Your task to perform on an android device: set the timer Image 0: 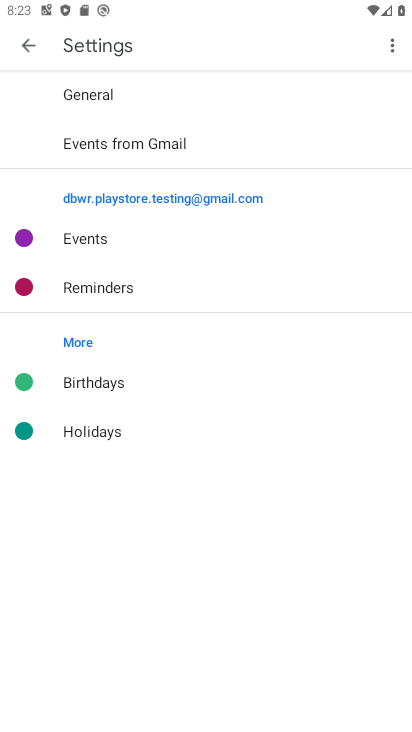
Step 0: press home button
Your task to perform on an android device: set the timer Image 1: 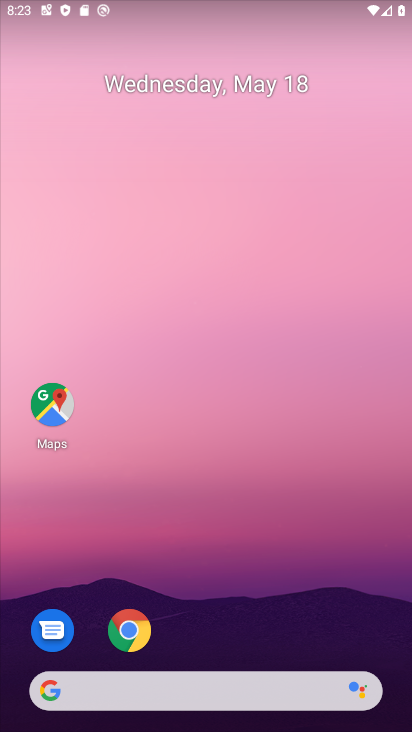
Step 1: drag from (148, 690) to (318, 150)
Your task to perform on an android device: set the timer Image 2: 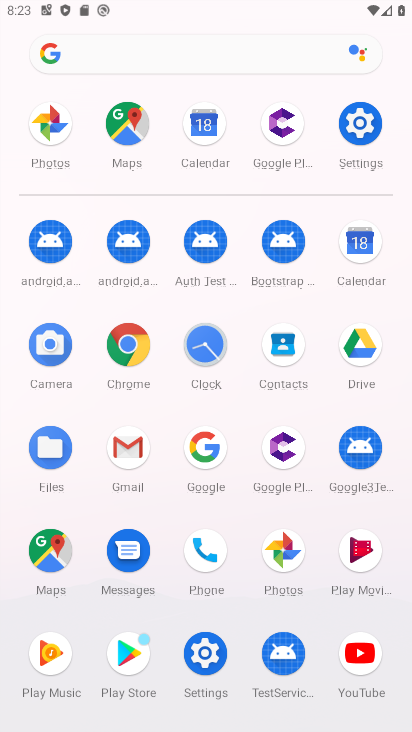
Step 2: click (202, 352)
Your task to perform on an android device: set the timer Image 3: 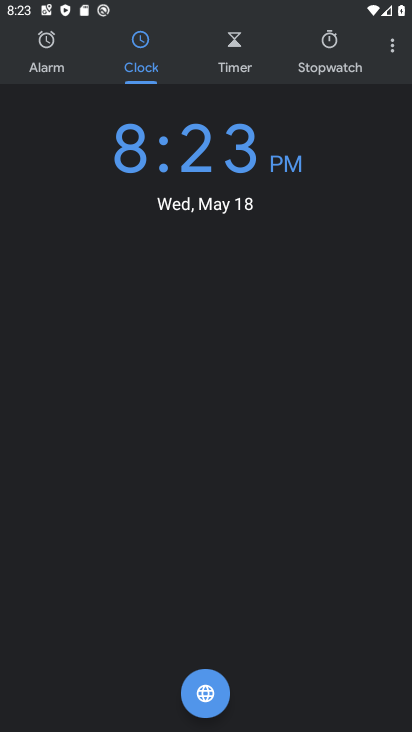
Step 3: click (232, 61)
Your task to perform on an android device: set the timer Image 4: 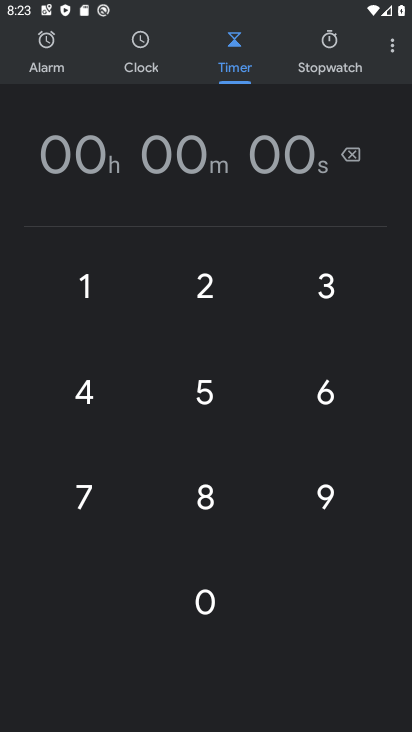
Step 4: click (89, 304)
Your task to perform on an android device: set the timer Image 5: 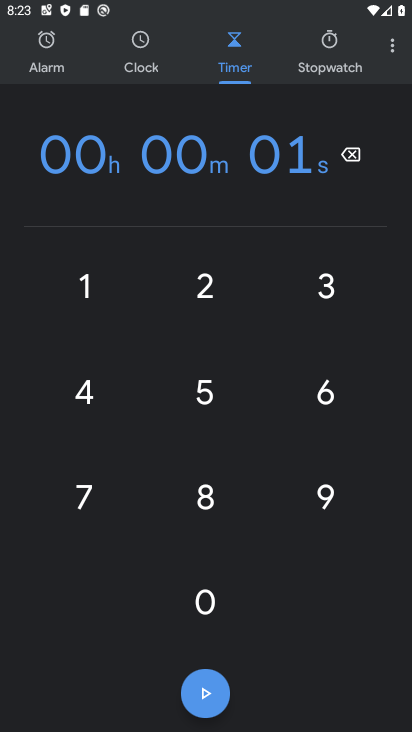
Step 5: click (205, 293)
Your task to perform on an android device: set the timer Image 6: 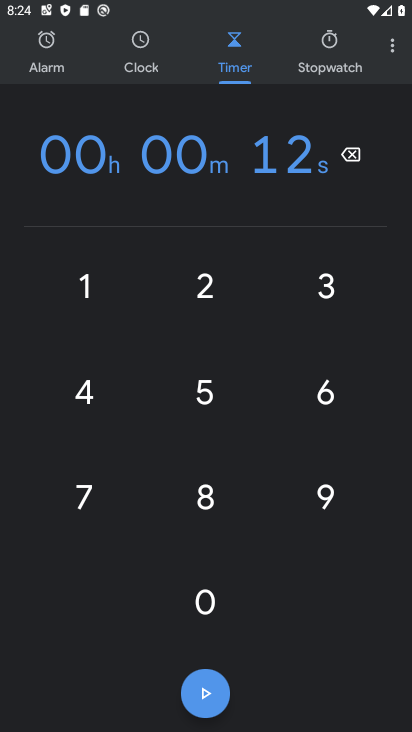
Step 6: click (202, 696)
Your task to perform on an android device: set the timer Image 7: 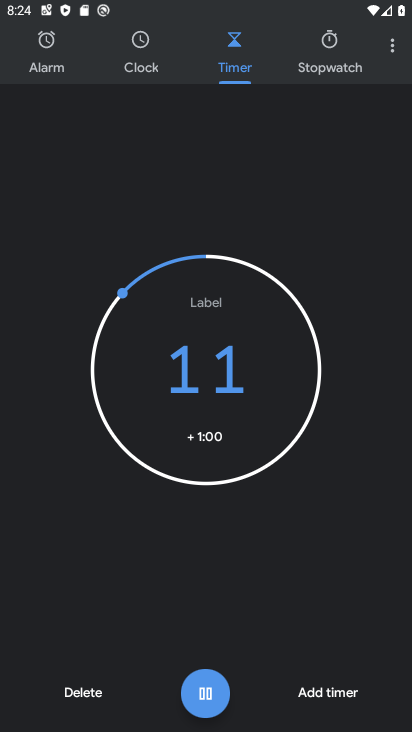
Step 7: click (202, 696)
Your task to perform on an android device: set the timer Image 8: 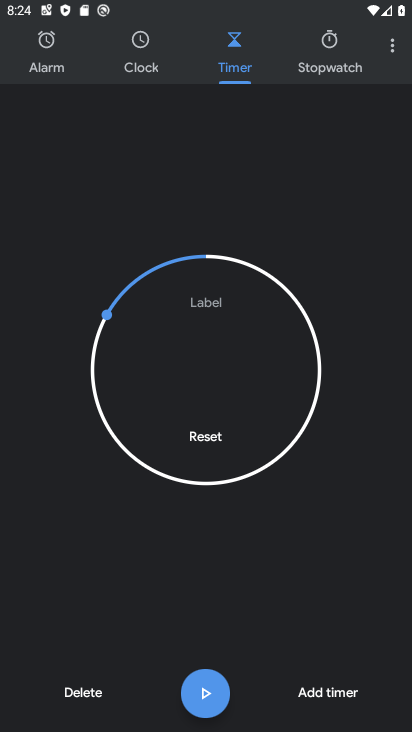
Step 8: task complete